Your task to perform on an android device: toggle show notifications on the lock screen Image 0: 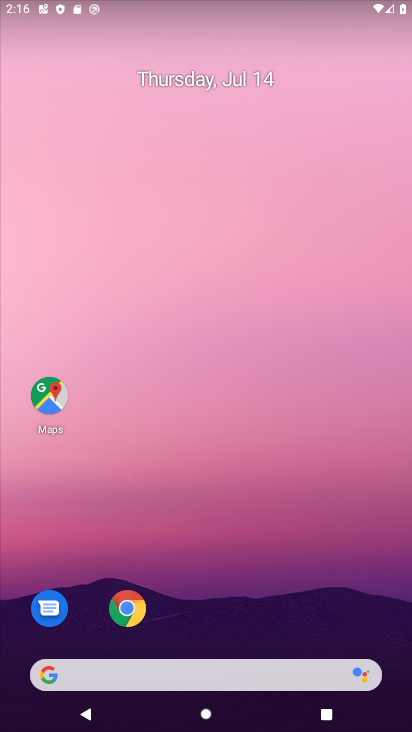
Step 0: drag from (213, 433) to (213, 89)
Your task to perform on an android device: toggle show notifications on the lock screen Image 1: 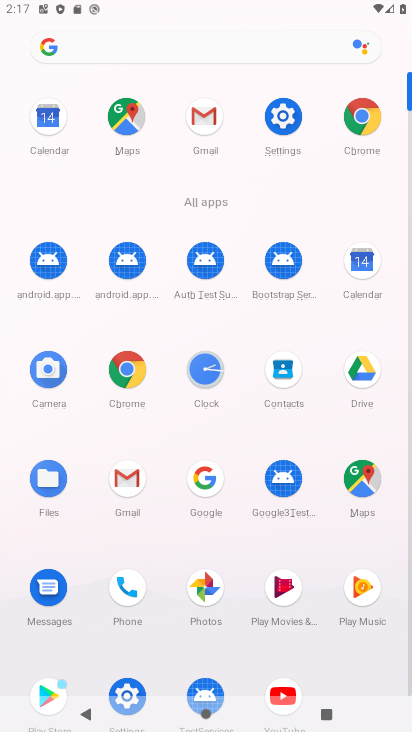
Step 1: click (282, 124)
Your task to perform on an android device: toggle show notifications on the lock screen Image 2: 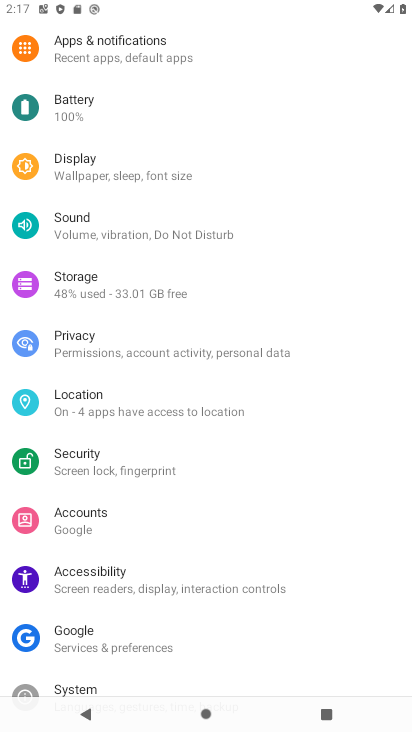
Step 2: click (153, 47)
Your task to perform on an android device: toggle show notifications on the lock screen Image 3: 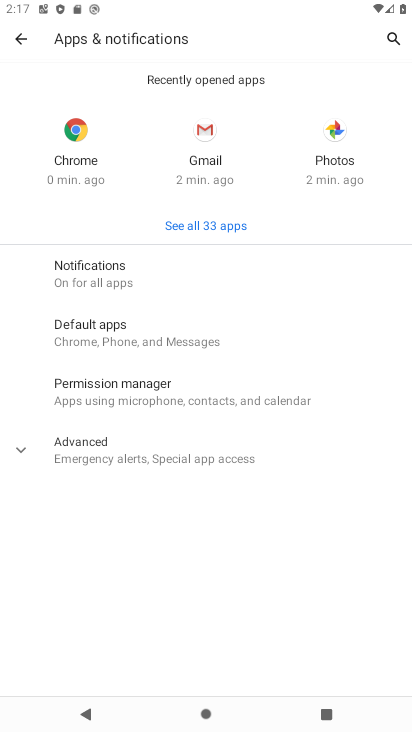
Step 3: click (111, 274)
Your task to perform on an android device: toggle show notifications on the lock screen Image 4: 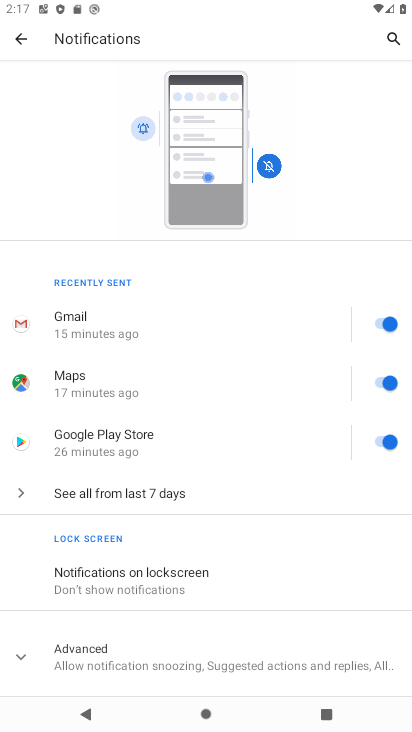
Step 4: click (188, 586)
Your task to perform on an android device: toggle show notifications on the lock screen Image 5: 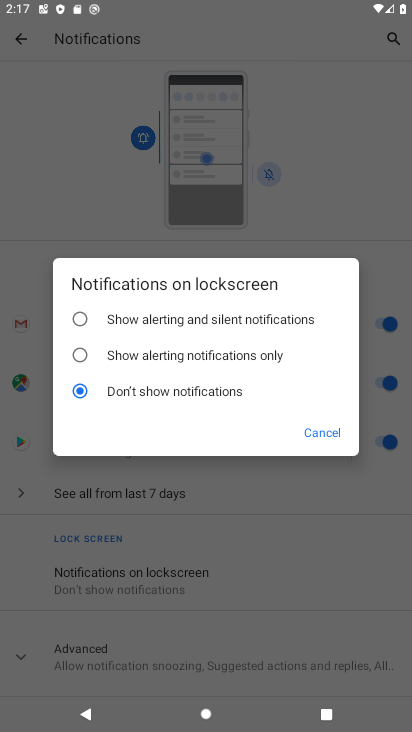
Step 5: click (81, 321)
Your task to perform on an android device: toggle show notifications on the lock screen Image 6: 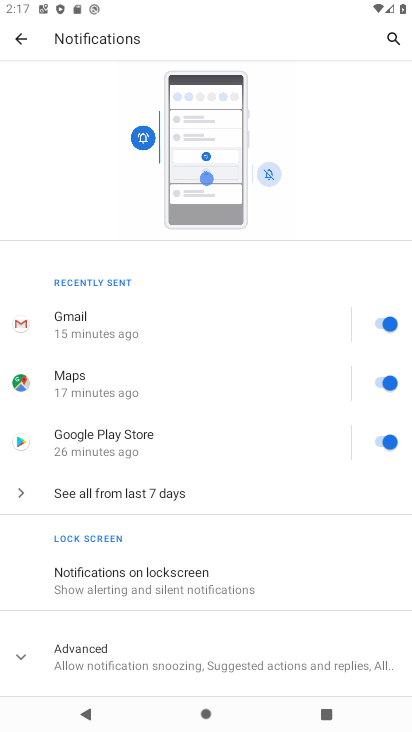
Step 6: task complete